Your task to perform on an android device: Clear all items from cart on amazon. Image 0: 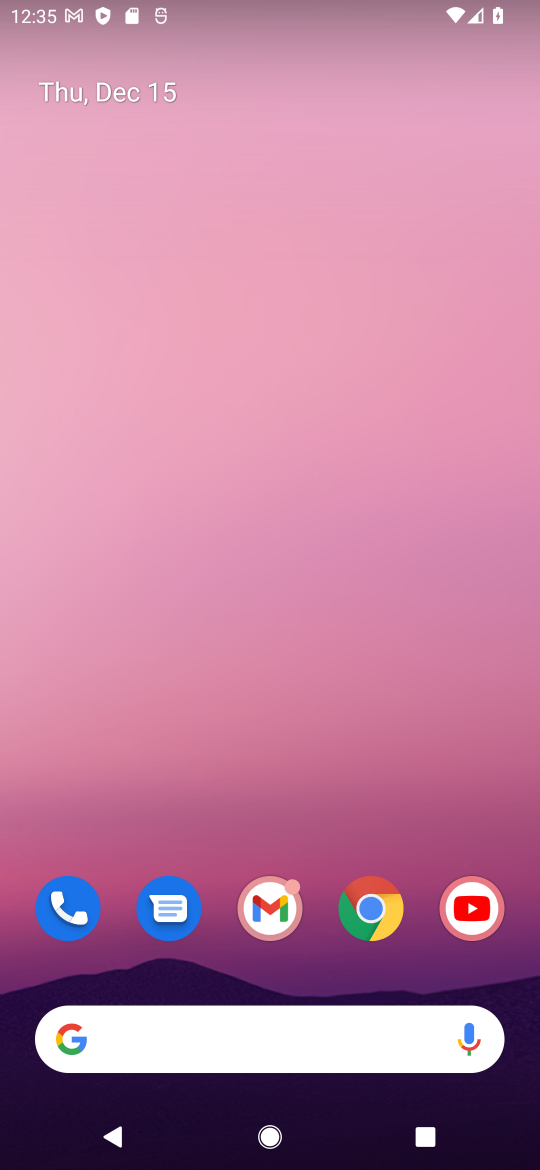
Step 0: click (378, 923)
Your task to perform on an android device: Clear all items from cart on amazon. Image 1: 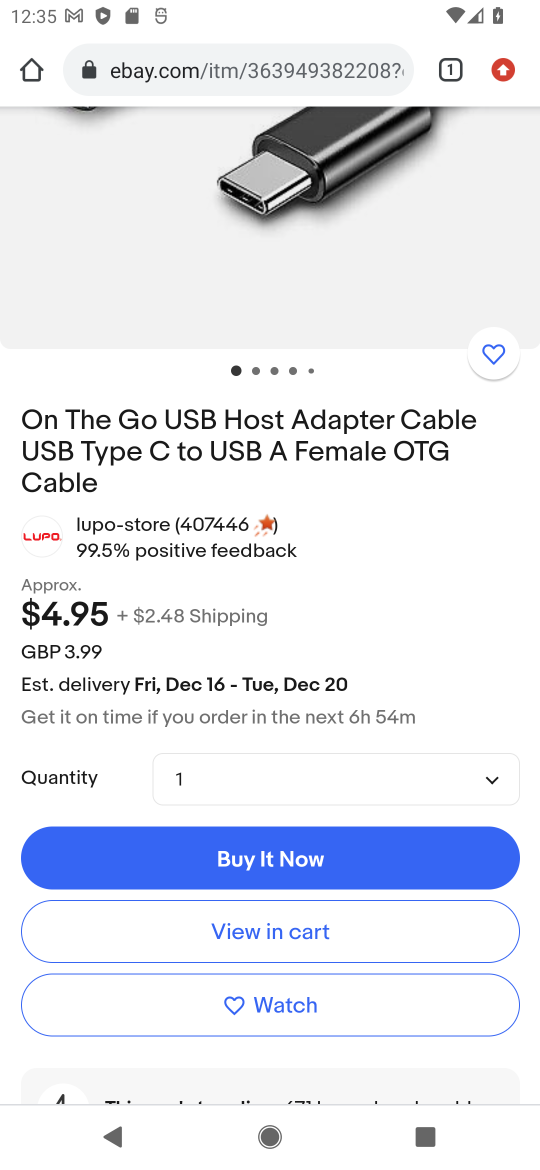
Step 1: click (224, 80)
Your task to perform on an android device: Clear all items from cart on amazon. Image 2: 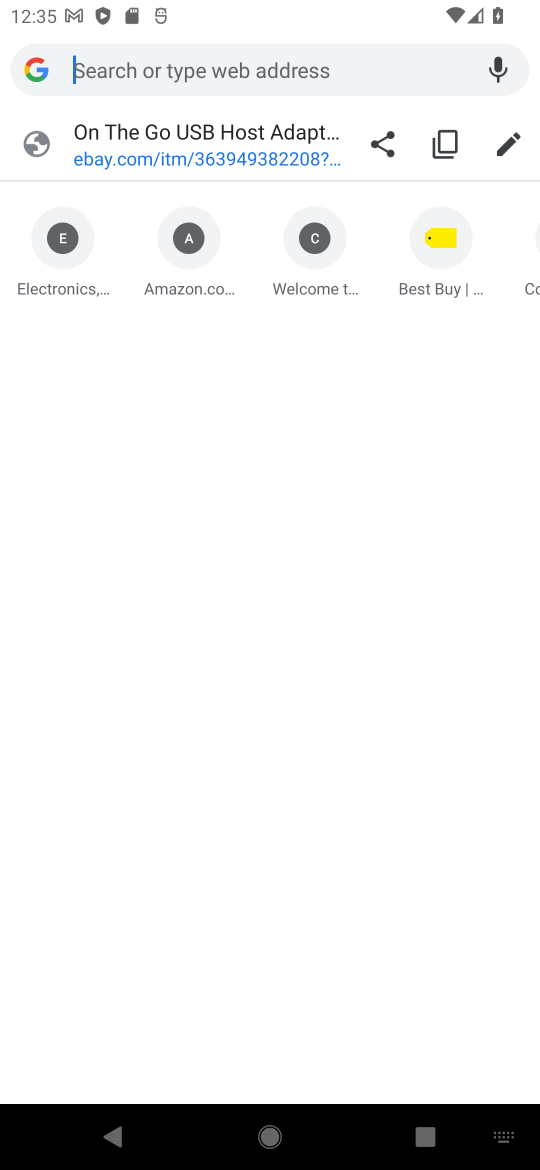
Step 2: click (186, 283)
Your task to perform on an android device: Clear all items from cart on amazon. Image 3: 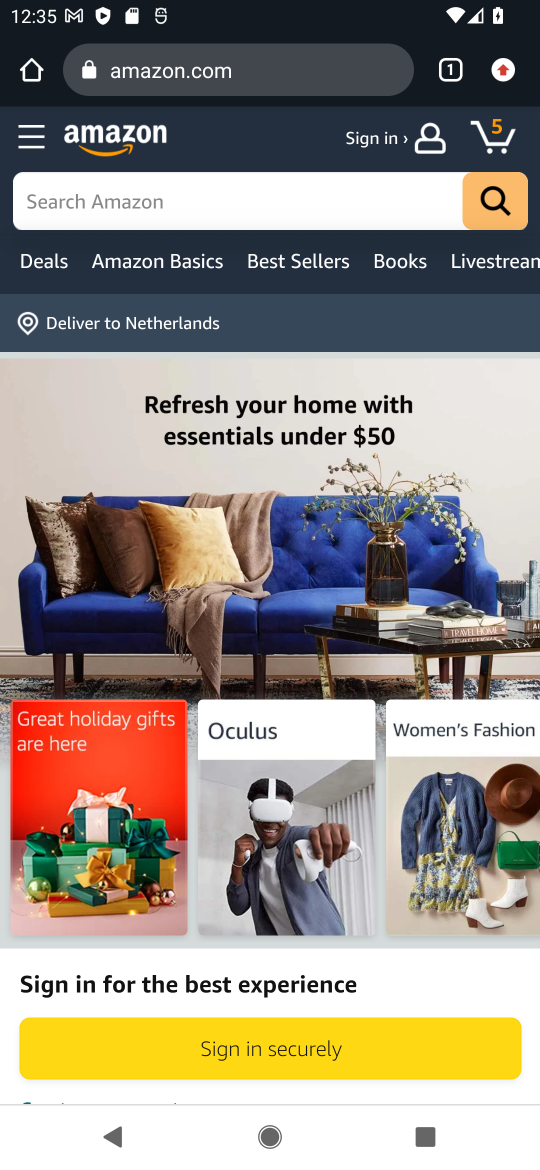
Step 3: click (496, 140)
Your task to perform on an android device: Clear all items from cart on amazon. Image 4: 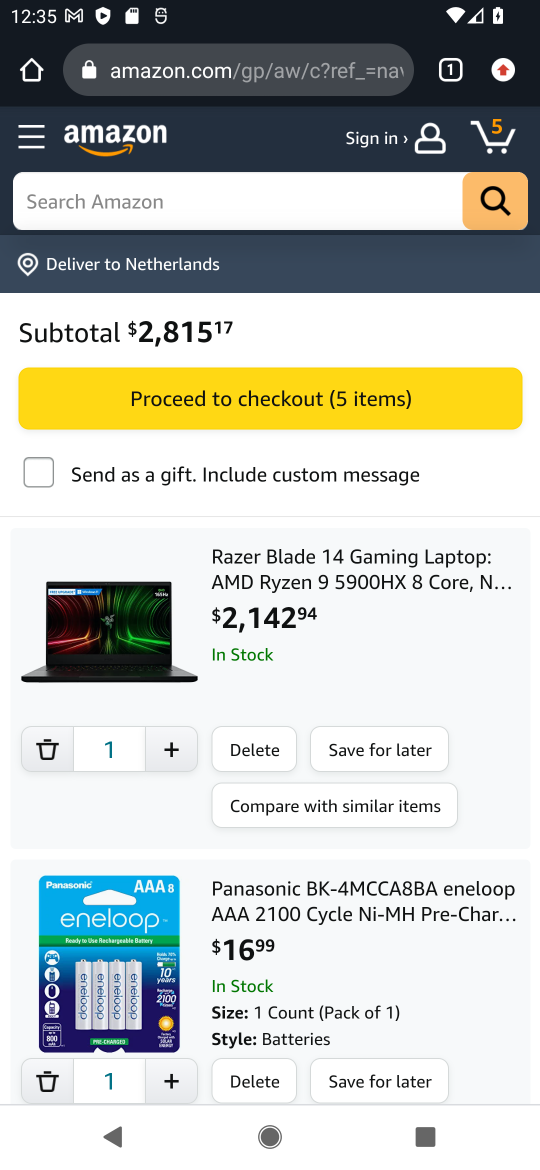
Step 4: click (247, 753)
Your task to perform on an android device: Clear all items from cart on amazon. Image 5: 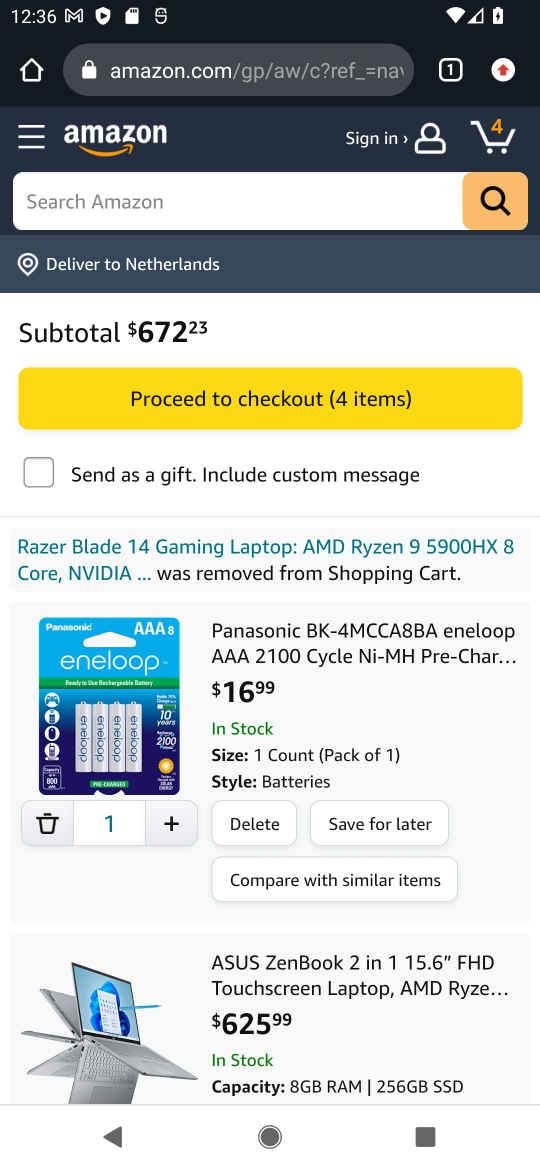
Step 5: click (248, 821)
Your task to perform on an android device: Clear all items from cart on amazon. Image 6: 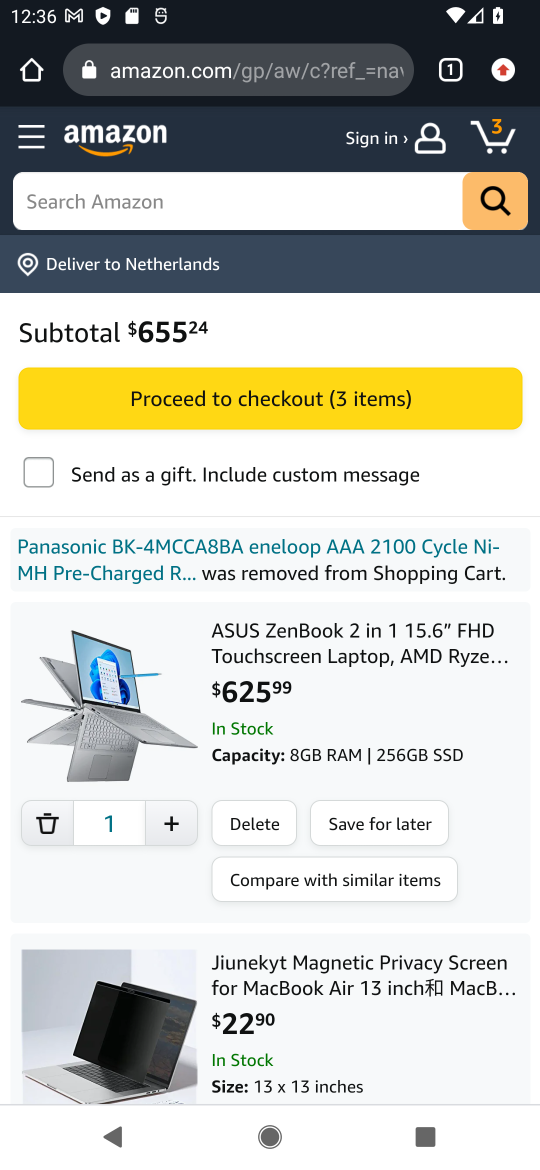
Step 6: click (248, 821)
Your task to perform on an android device: Clear all items from cart on amazon. Image 7: 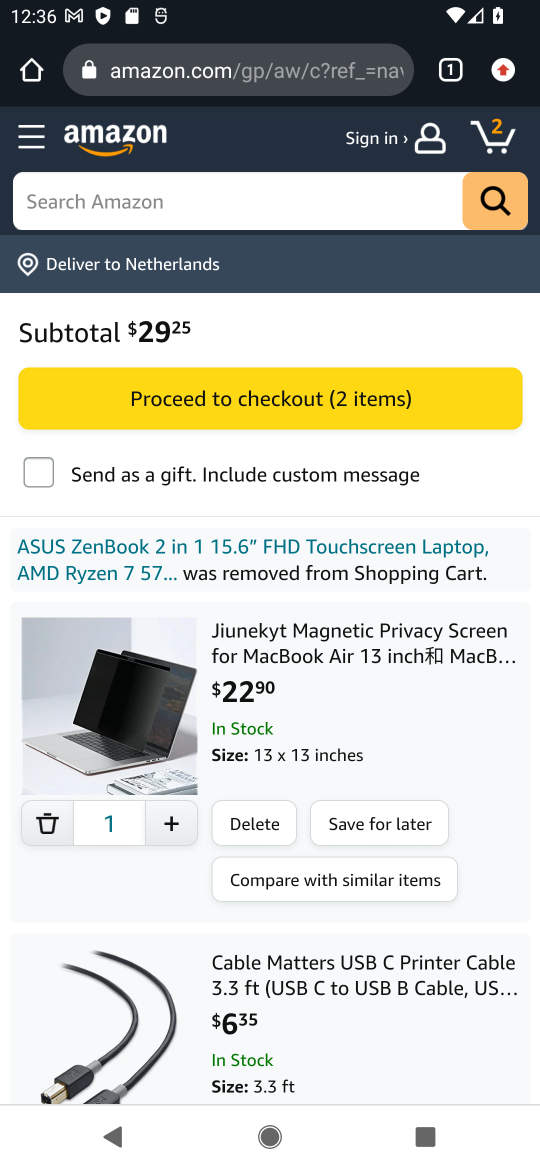
Step 7: click (248, 821)
Your task to perform on an android device: Clear all items from cart on amazon. Image 8: 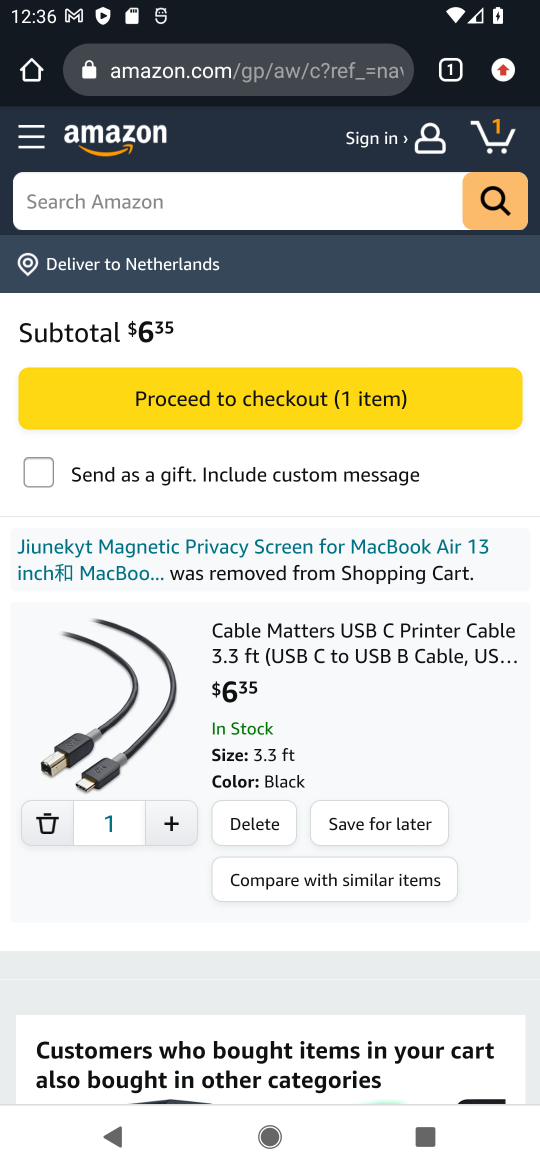
Step 8: click (248, 821)
Your task to perform on an android device: Clear all items from cart on amazon. Image 9: 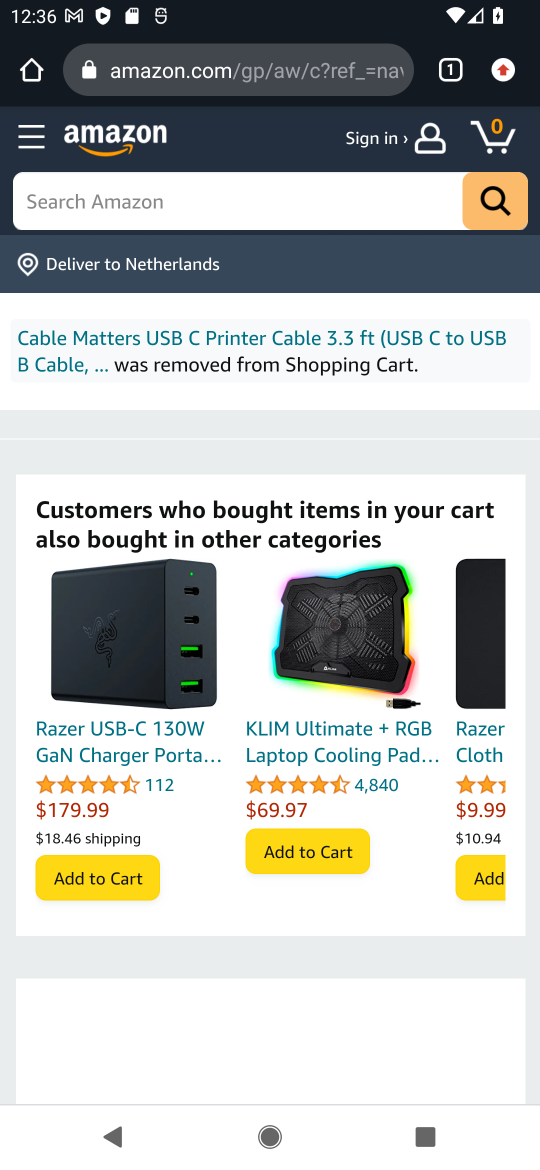
Step 9: task complete